Your task to perform on an android device: turn smart compose on in the gmail app Image 0: 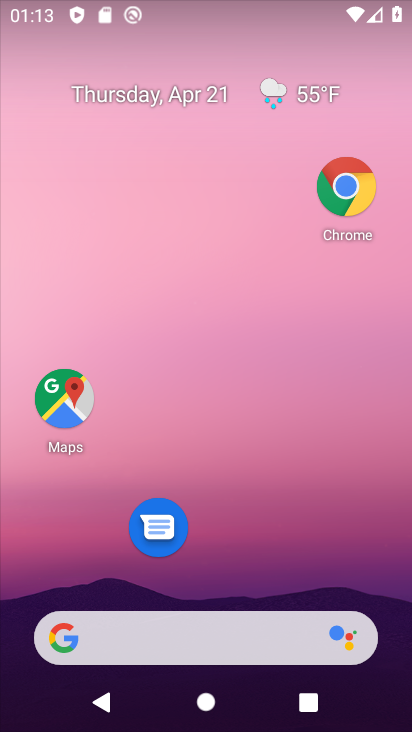
Step 0: click (340, 176)
Your task to perform on an android device: turn smart compose on in the gmail app Image 1: 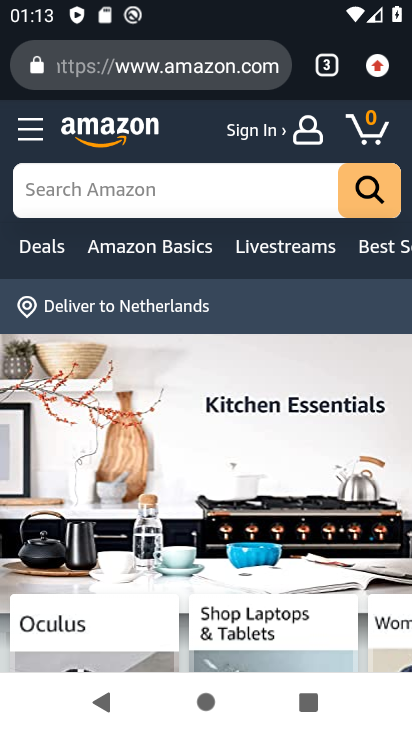
Step 1: drag from (292, 544) to (292, 249)
Your task to perform on an android device: turn smart compose on in the gmail app Image 2: 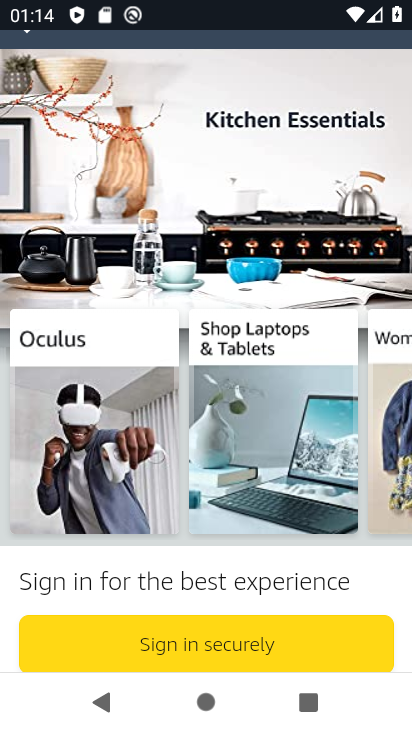
Step 2: drag from (235, 204) to (334, 534)
Your task to perform on an android device: turn smart compose on in the gmail app Image 3: 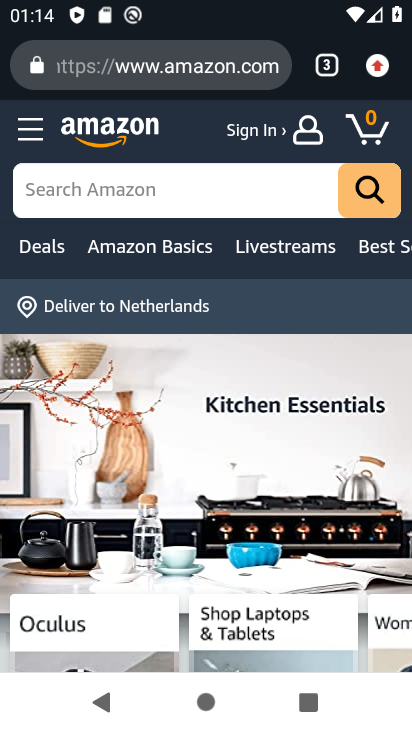
Step 3: drag from (368, 59) to (408, 612)
Your task to perform on an android device: turn smart compose on in the gmail app Image 4: 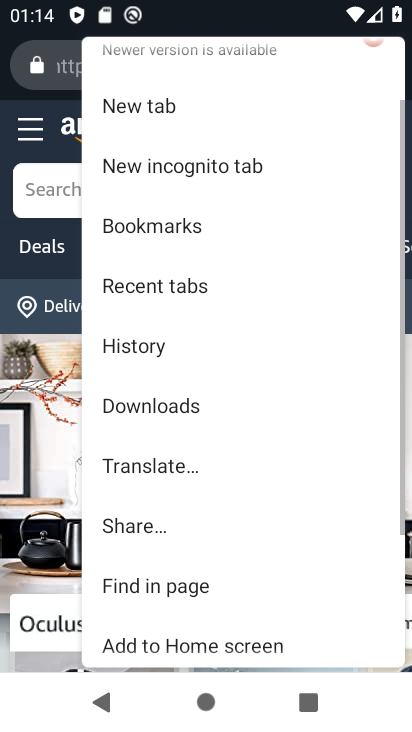
Step 4: press home button
Your task to perform on an android device: turn smart compose on in the gmail app Image 5: 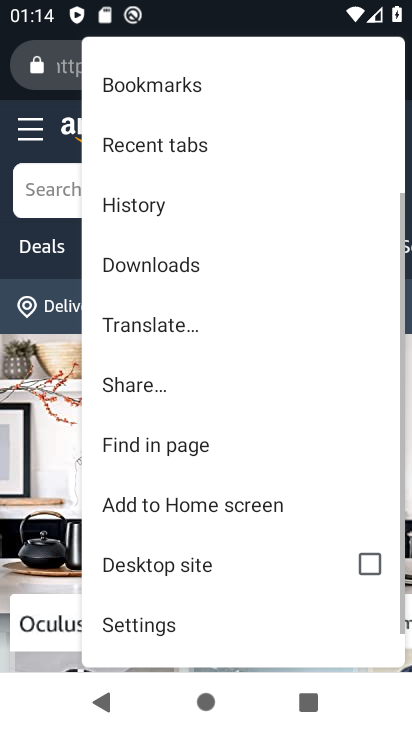
Step 5: drag from (408, 612) to (385, 500)
Your task to perform on an android device: turn smart compose on in the gmail app Image 6: 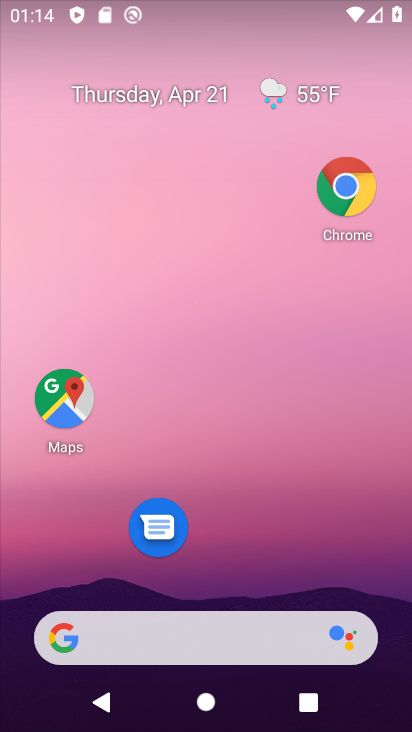
Step 6: drag from (237, 532) to (265, 8)
Your task to perform on an android device: turn smart compose on in the gmail app Image 7: 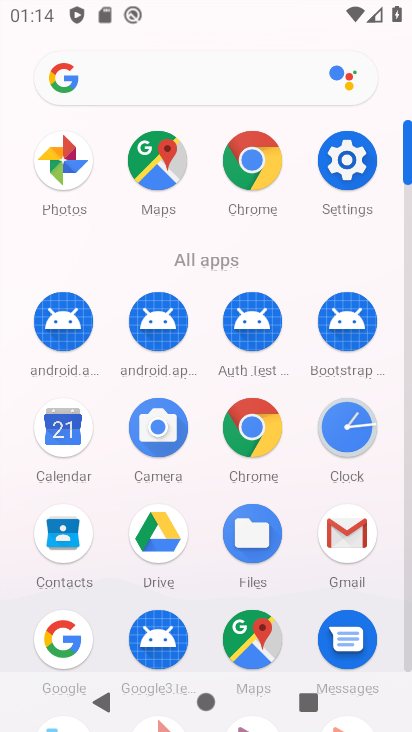
Step 7: click (345, 539)
Your task to perform on an android device: turn smart compose on in the gmail app Image 8: 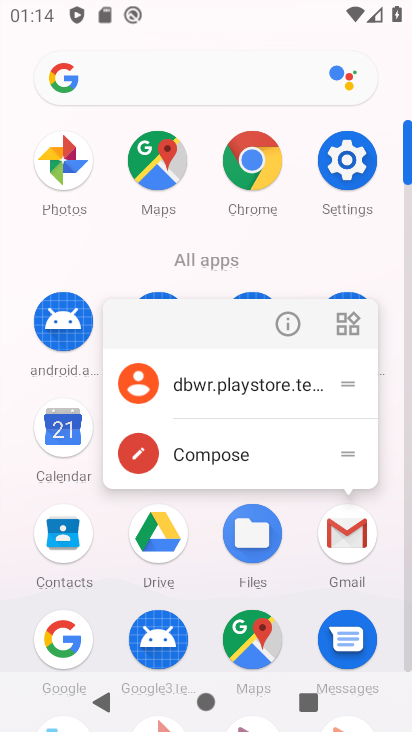
Step 8: click (292, 323)
Your task to perform on an android device: turn smart compose on in the gmail app Image 9: 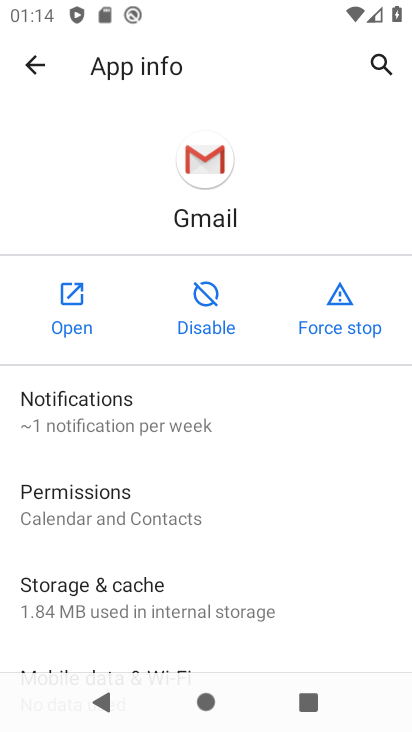
Step 9: click (81, 313)
Your task to perform on an android device: turn smart compose on in the gmail app Image 10: 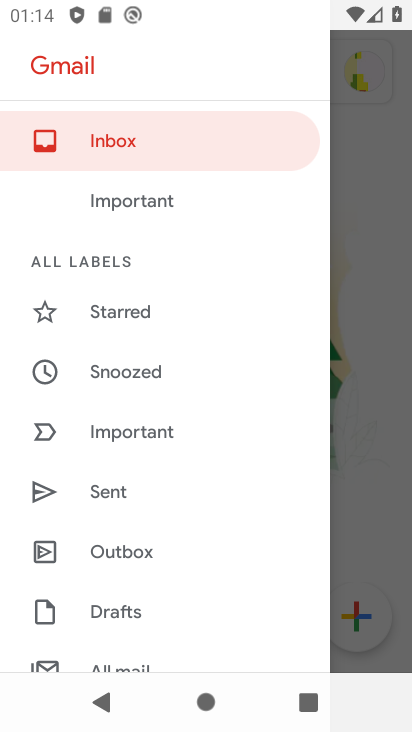
Step 10: drag from (173, 608) to (323, 4)
Your task to perform on an android device: turn smart compose on in the gmail app Image 11: 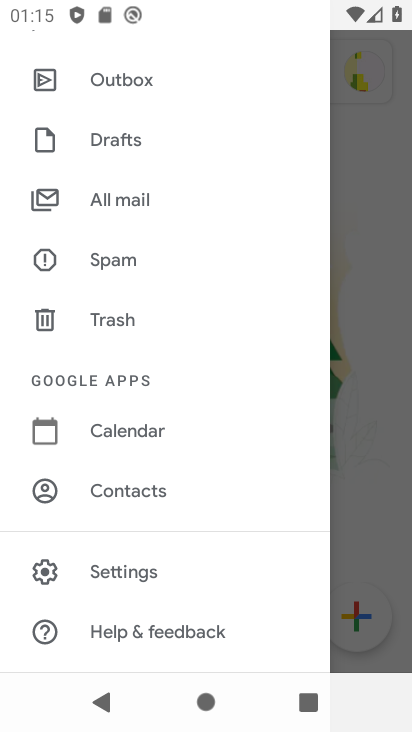
Step 11: click (146, 586)
Your task to perform on an android device: turn smart compose on in the gmail app Image 12: 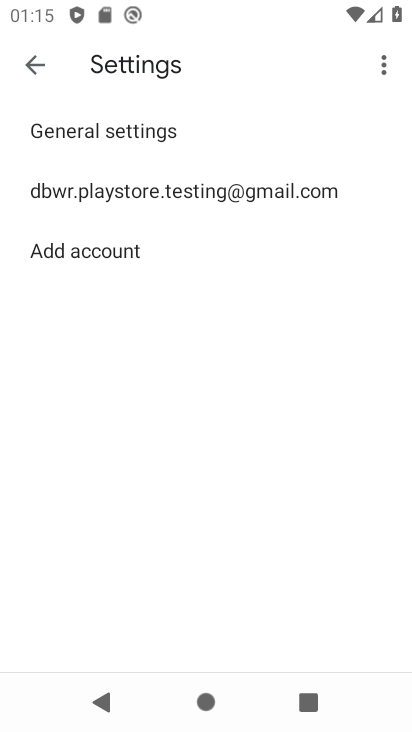
Step 12: click (199, 192)
Your task to perform on an android device: turn smart compose on in the gmail app Image 13: 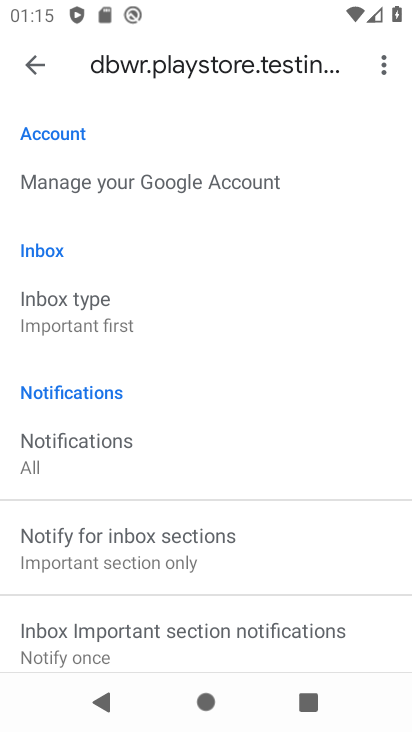
Step 13: task complete